Your task to perform on an android device: Open accessibility settings Image 0: 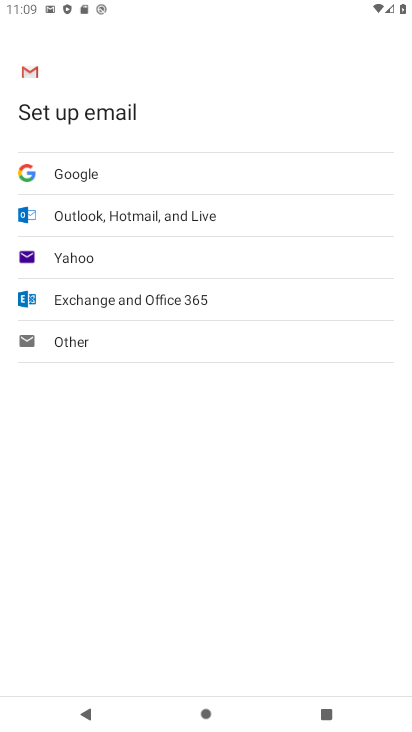
Step 0: press back button
Your task to perform on an android device: Open accessibility settings Image 1: 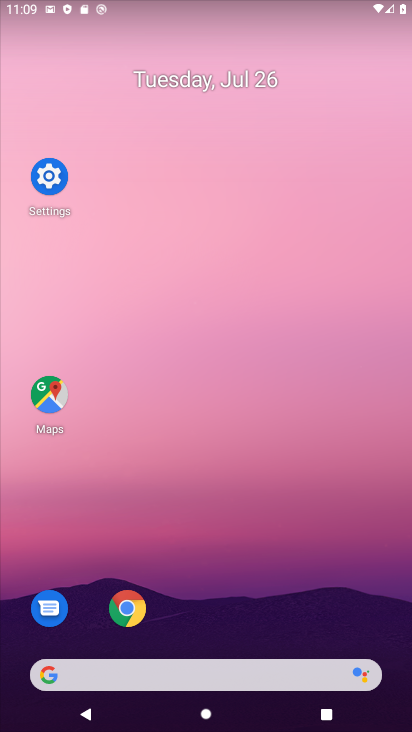
Step 1: click (48, 176)
Your task to perform on an android device: Open accessibility settings Image 2: 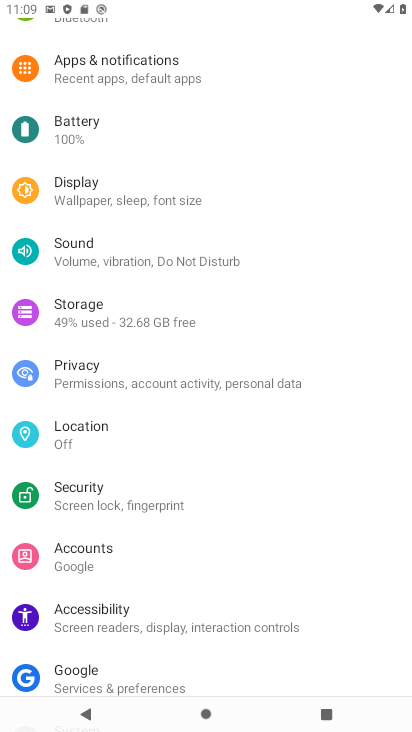
Step 2: click (128, 617)
Your task to perform on an android device: Open accessibility settings Image 3: 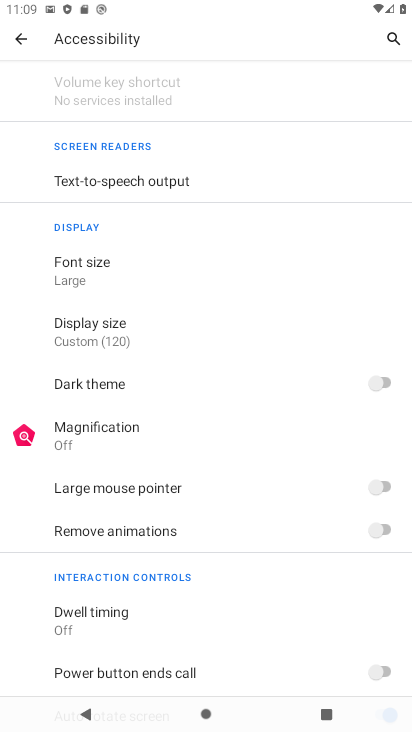
Step 3: task complete